Your task to perform on an android device: turn on priority inbox in the gmail app Image 0: 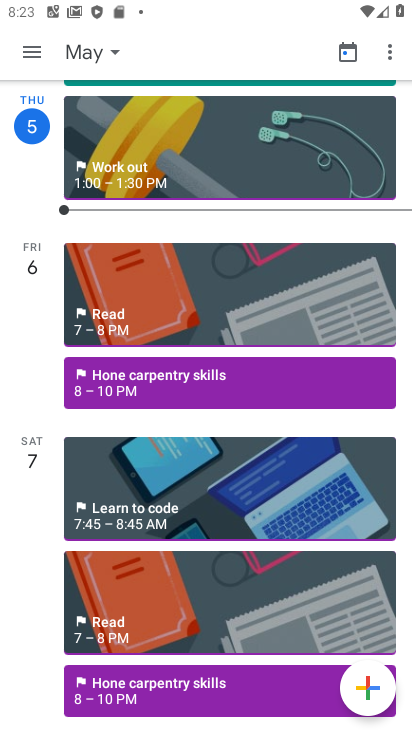
Step 0: press home button
Your task to perform on an android device: turn on priority inbox in the gmail app Image 1: 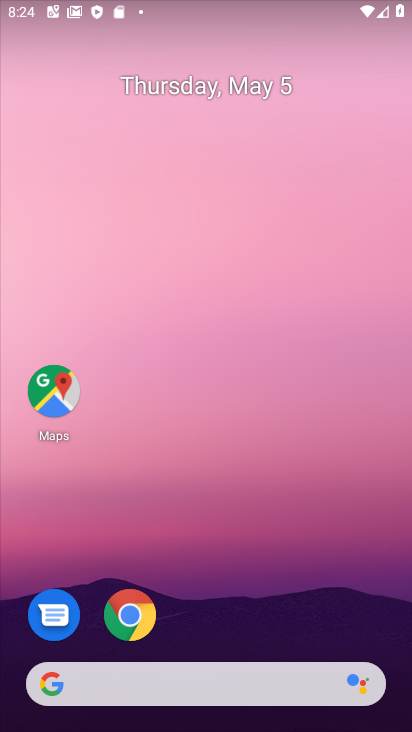
Step 1: drag from (272, 625) to (288, 244)
Your task to perform on an android device: turn on priority inbox in the gmail app Image 2: 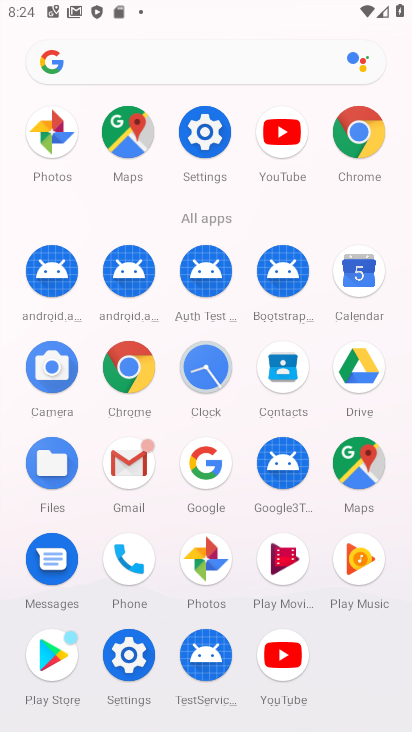
Step 2: click (132, 460)
Your task to perform on an android device: turn on priority inbox in the gmail app Image 3: 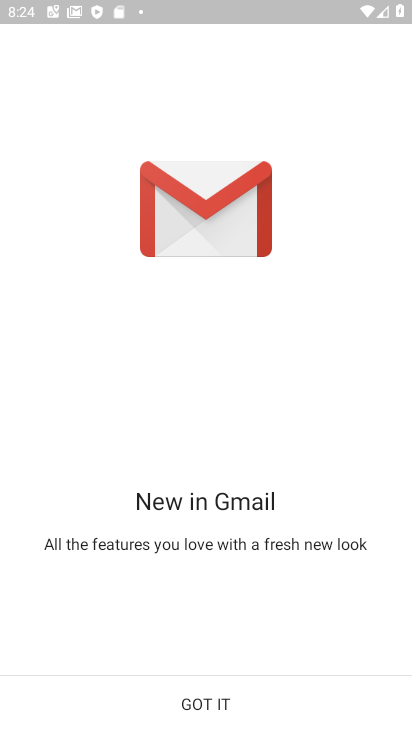
Step 3: click (186, 710)
Your task to perform on an android device: turn on priority inbox in the gmail app Image 4: 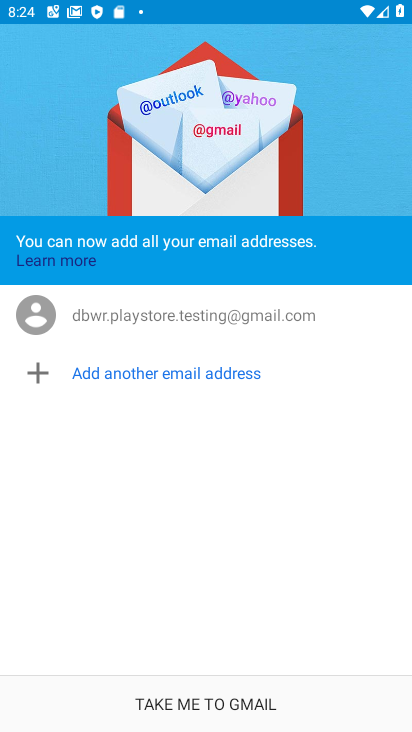
Step 4: click (195, 699)
Your task to perform on an android device: turn on priority inbox in the gmail app Image 5: 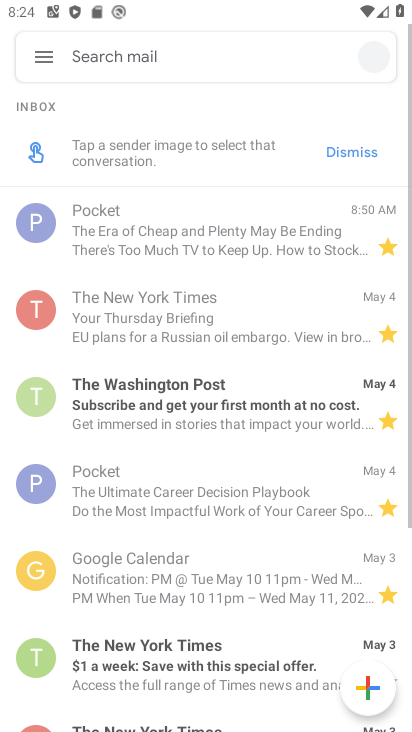
Step 5: click (46, 47)
Your task to perform on an android device: turn on priority inbox in the gmail app Image 6: 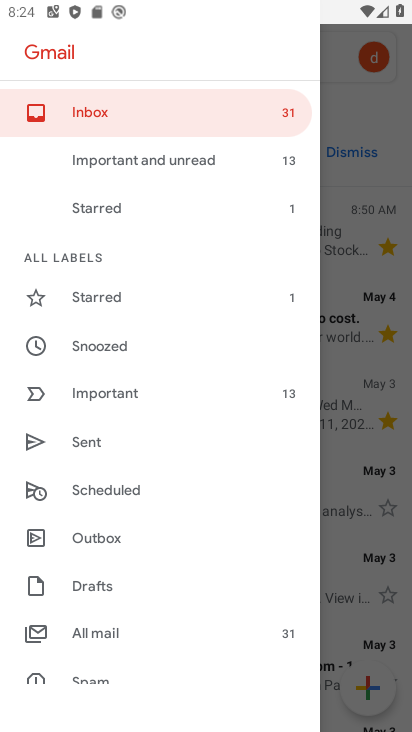
Step 6: drag from (124, 554) to (219, 21)
Your task to perform on an android device: turn on priority inbox in the gmail app Image 7: 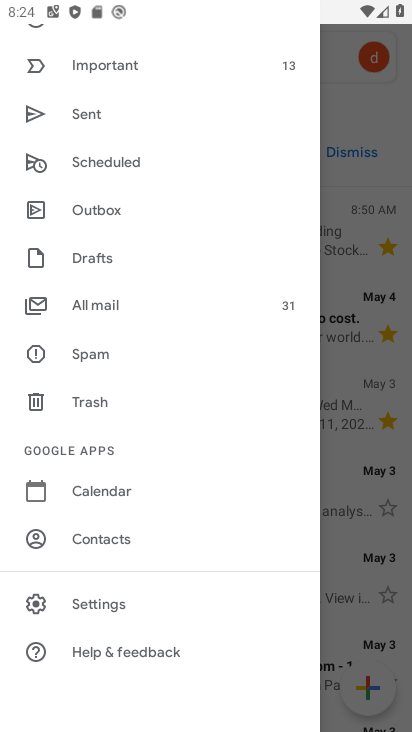
Step 7: click (106, 606)
Your task to perform on an android device: turn on priority inbox in the gmail app Image 8: 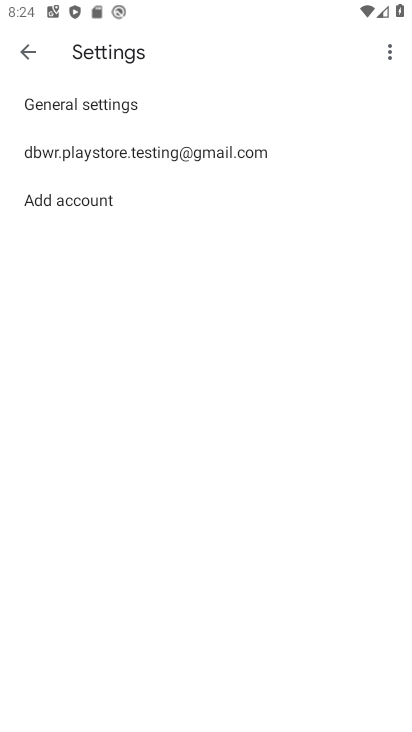
Step 8: click (114, 163)
Your task to perform on an android device: turn on priority inbox in the gmail app Image 9: 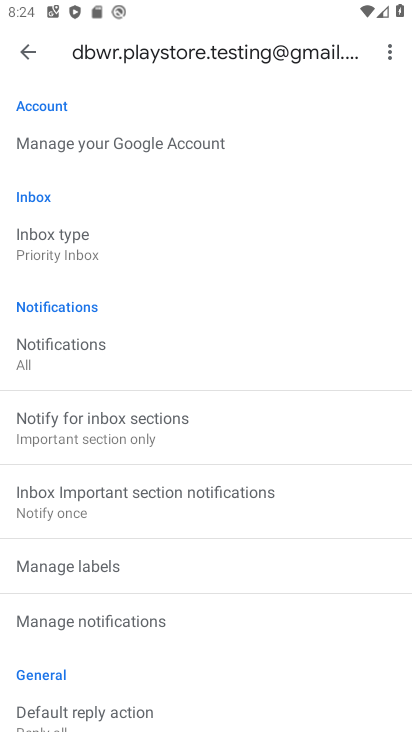
Step 9: click (88, 251)
Your task to perform on an android device: turn on priority inbox in the gmail app Image 10: 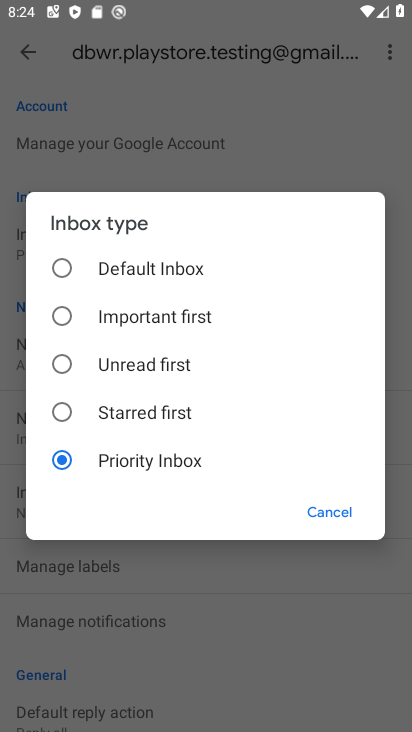
Step 10: task complete